Your task to perform on an android device: open app "Mercado Libre" Image 0: 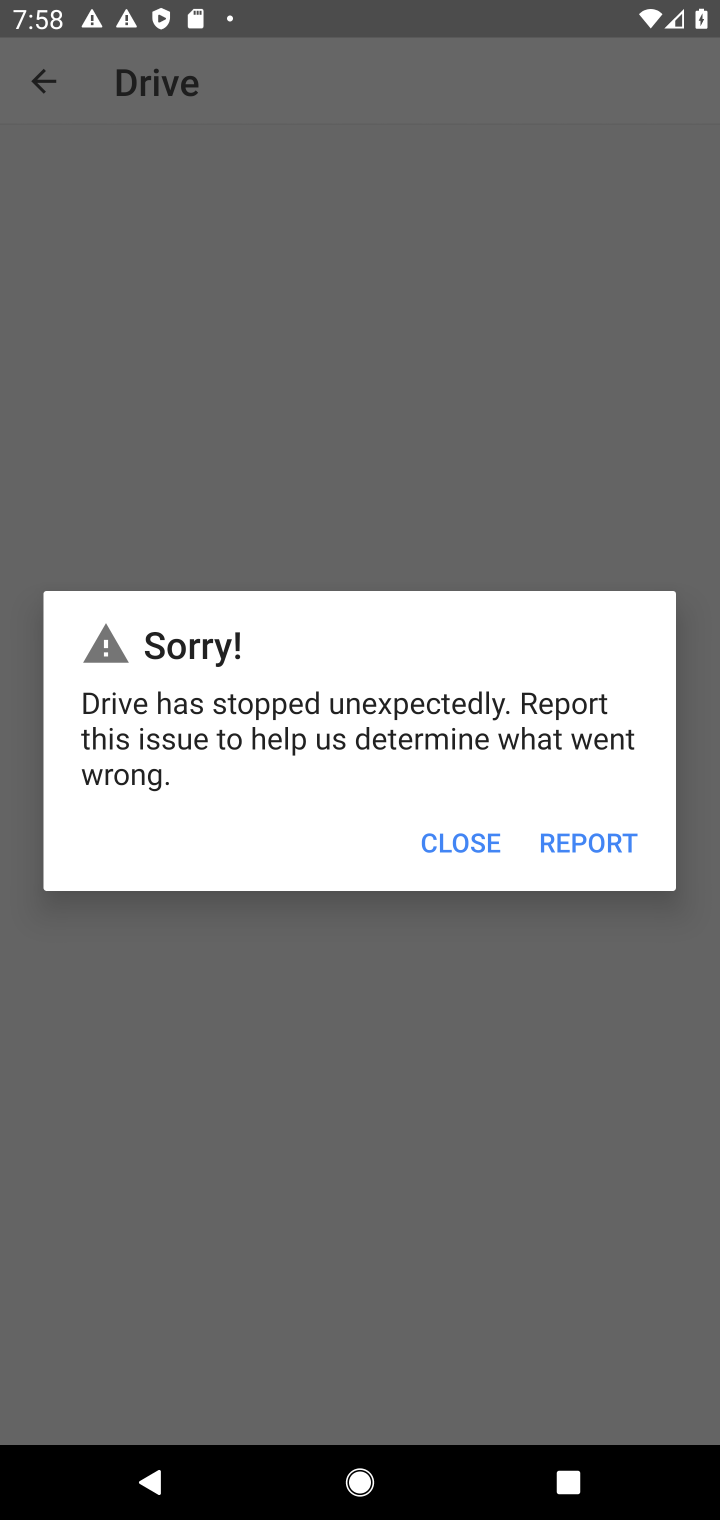
Step 0: press home button
Your task to perform on an android device: open app "Mercado Libre" Image 1: 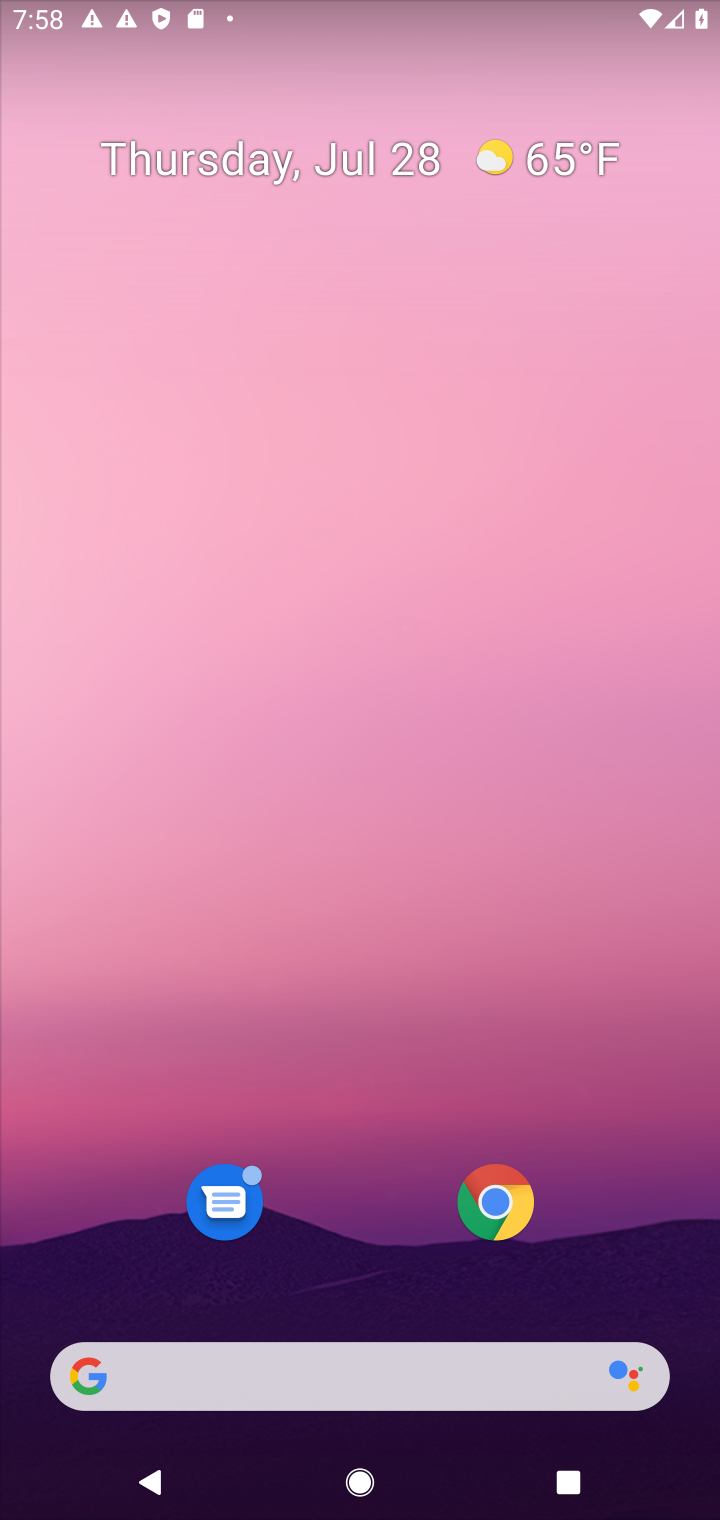
Step 1: drag from (370, 1319) to (462, 1)
Your task to perform on an android device: open app "Mercado Libre" Image 2: 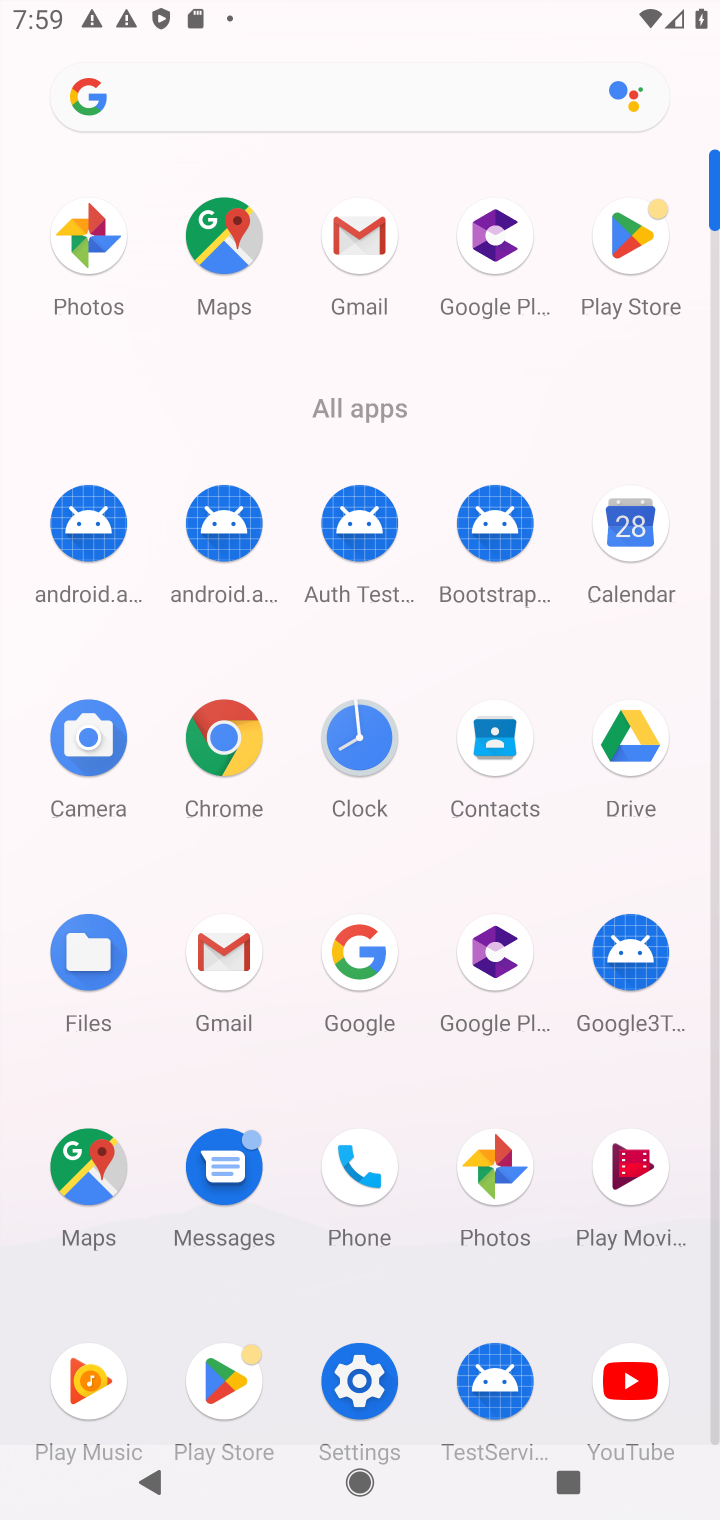
Step 2: click (633, 234)
Your task to perform on an android device: open app "Mercado Libre" Image 3: 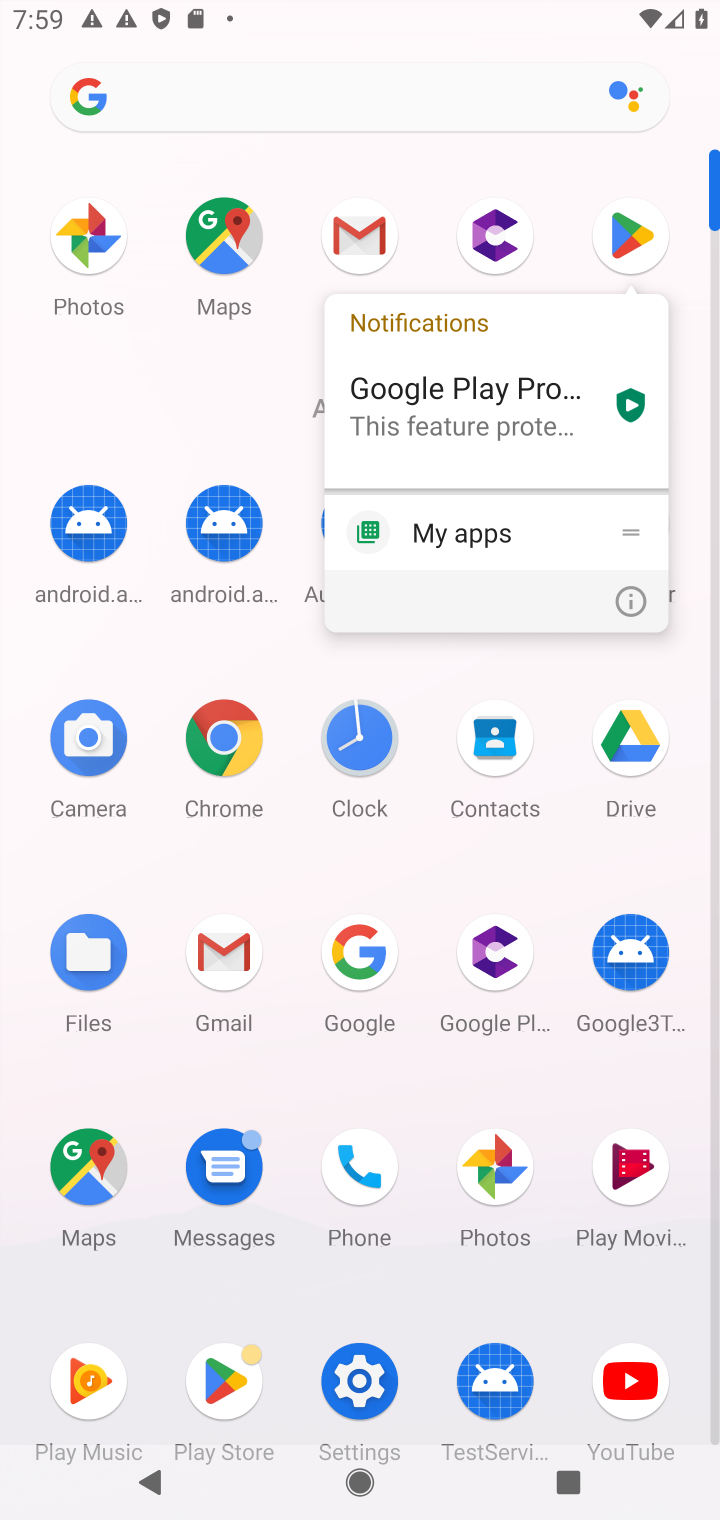
Step 3: click (633, 234)
Your task to perform on an android device: open app "Mercado Libre" Image 4: 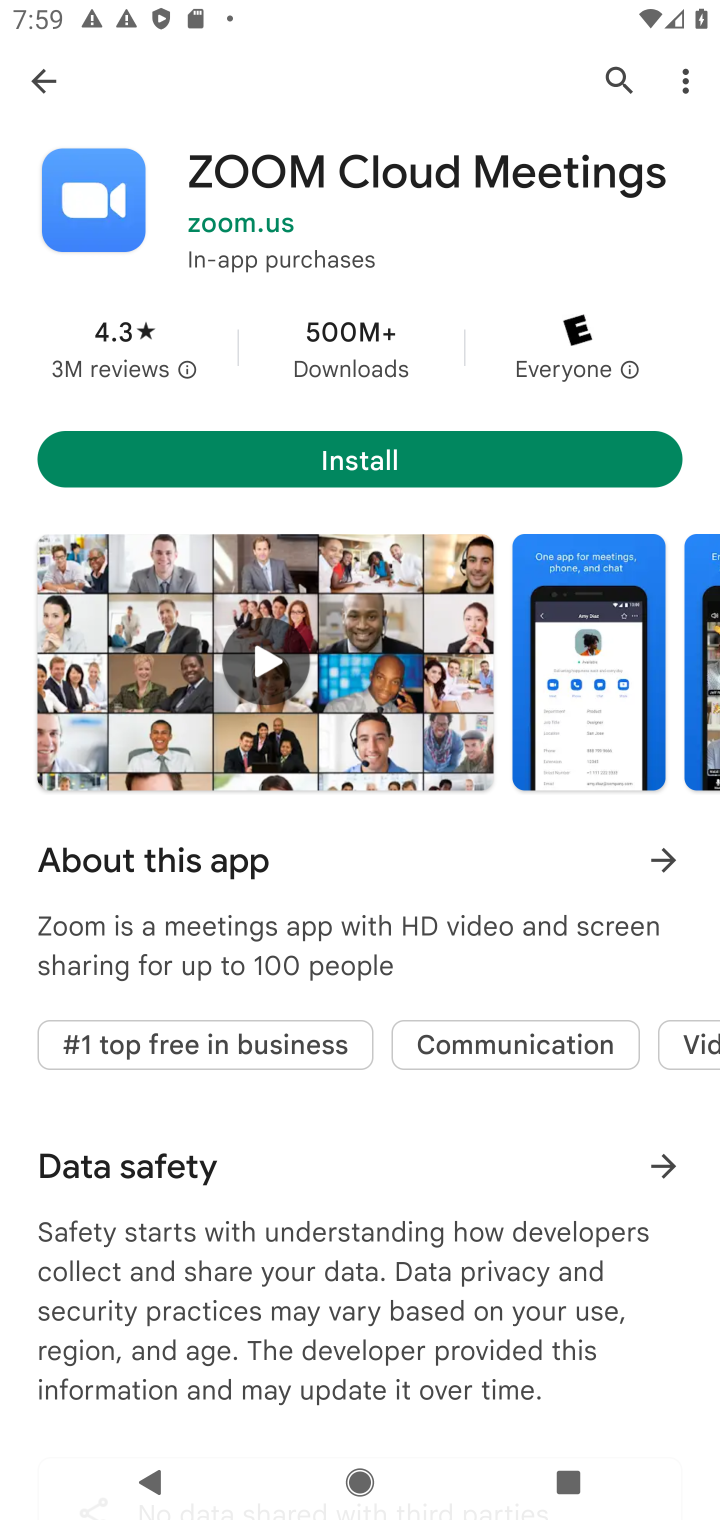
Step 4: click (43, 75)
Your task to perform on an android device: open app "Mercado Libre" Image 5: 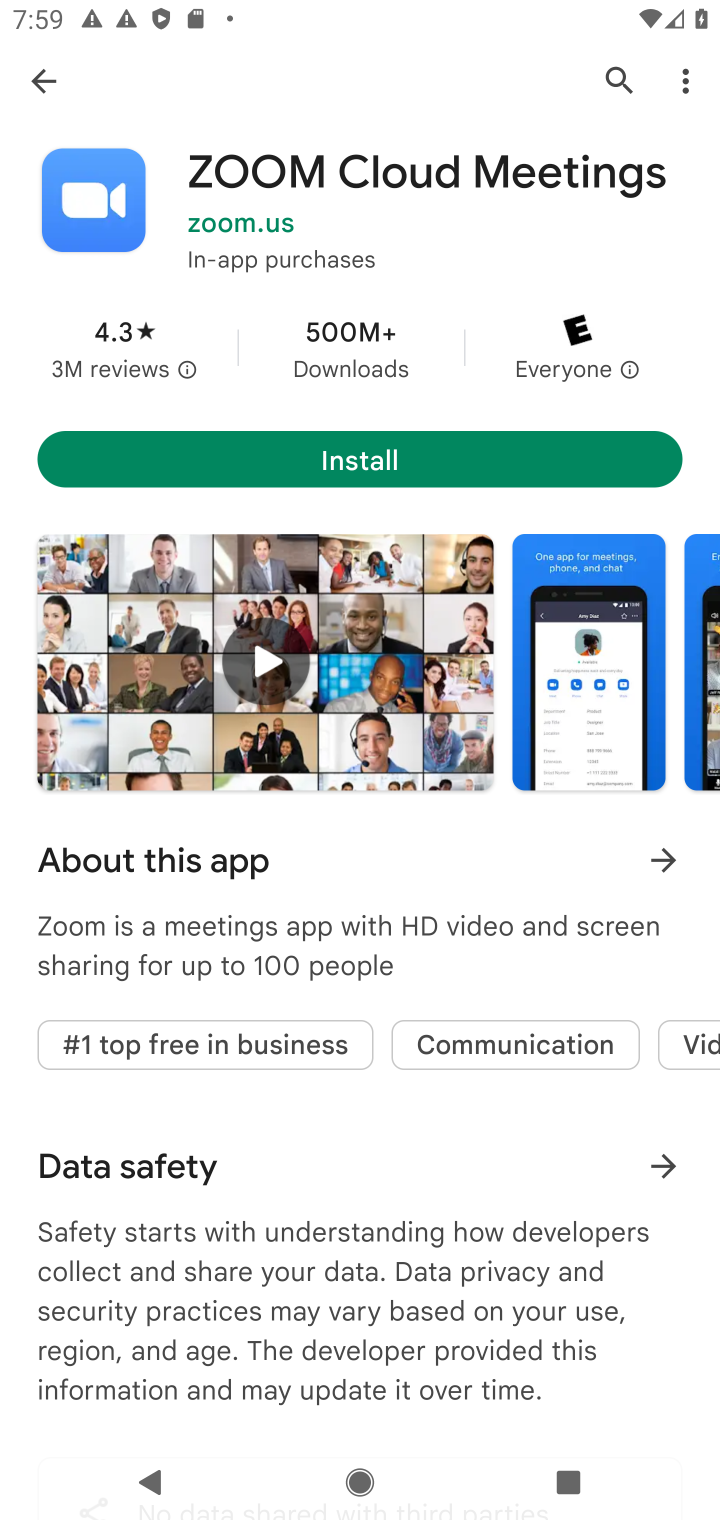
Step 5: click (51, 81)
Your task to perform on an android device: open app "Mercado Libre" Image 6: 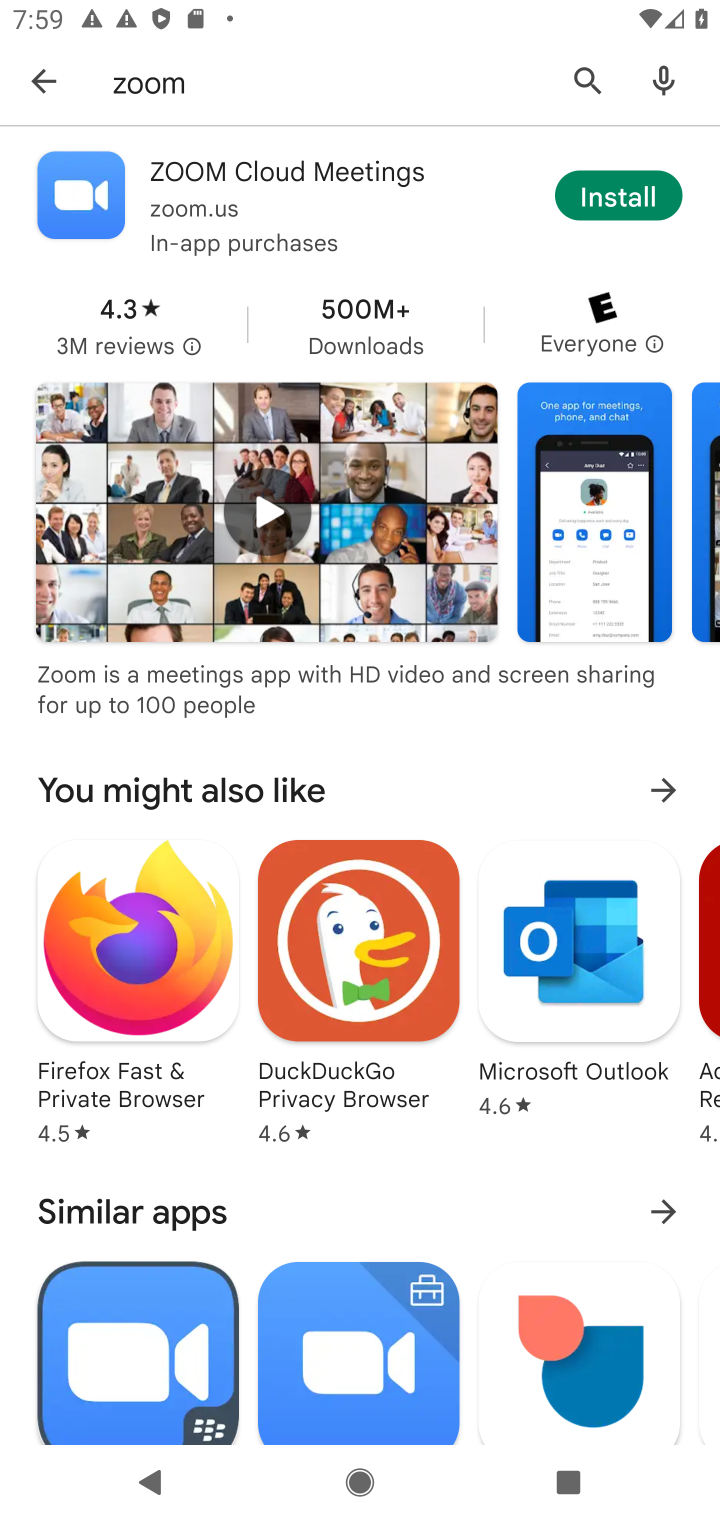
Step 6: click (587, 71)
Your task to perform on an android device: open app "Mercado Libre" Image 7: 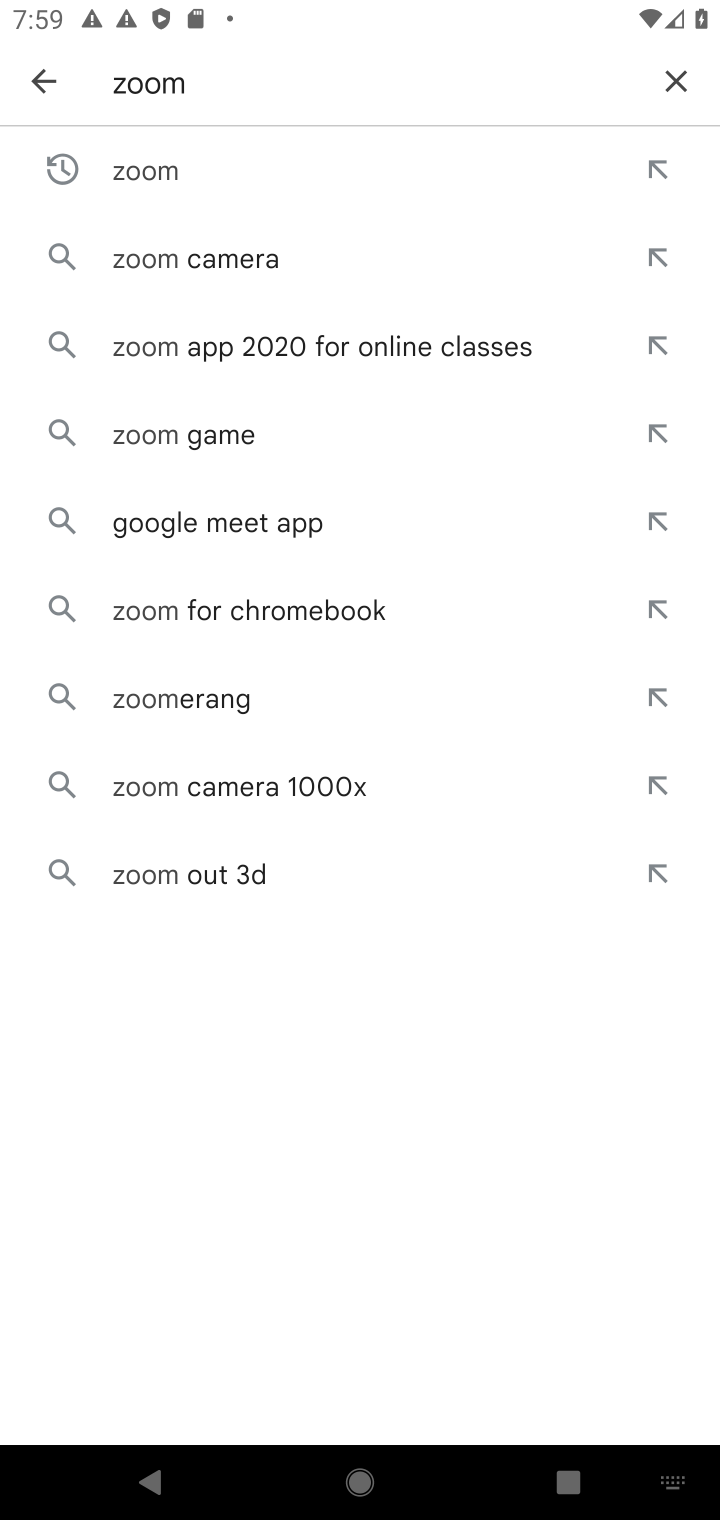
Step 7: click (663, 80)
Your task to perform on an android device: open app "Mercado Libre" Image 8: 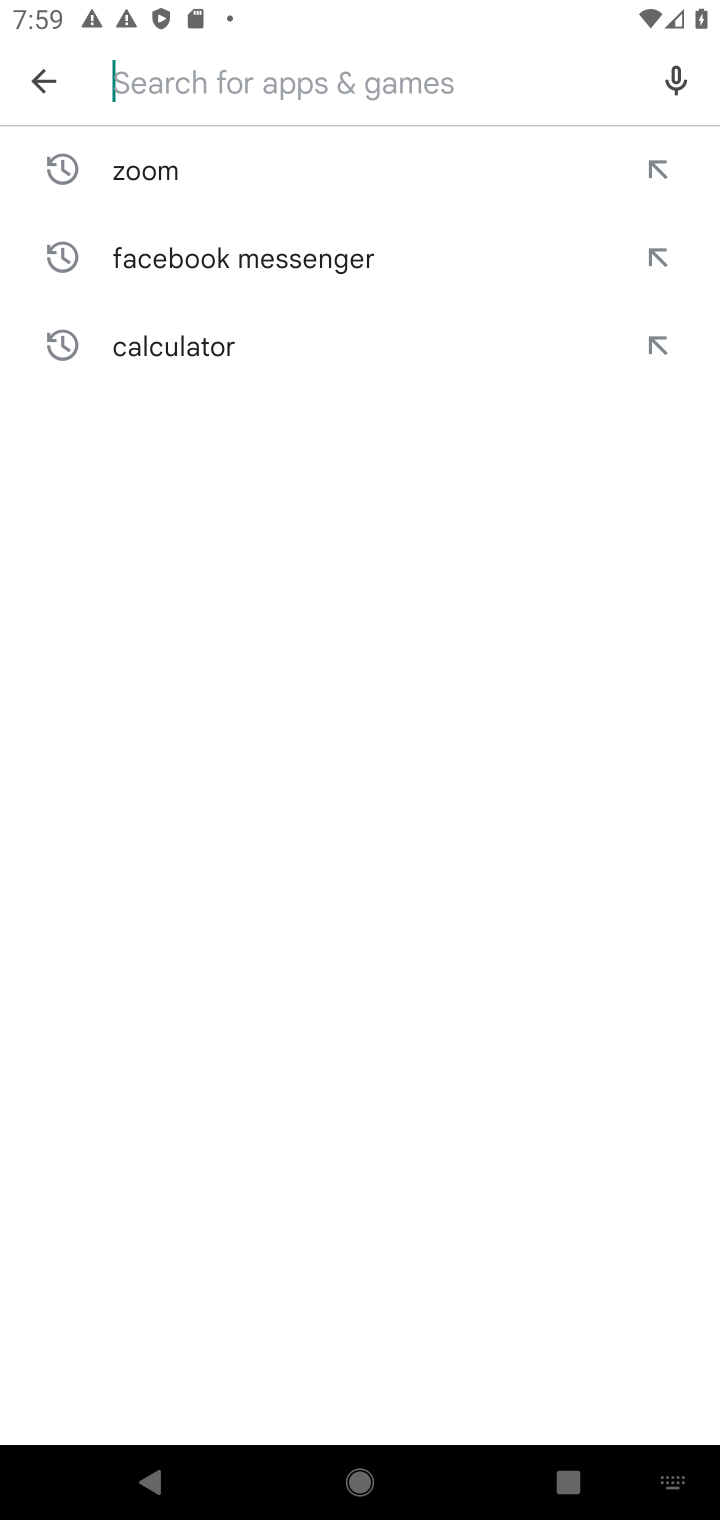
Step 8: type "Mercado Libre"
Your task to perform on an android device: open app "Mercado Libre" Image 9: 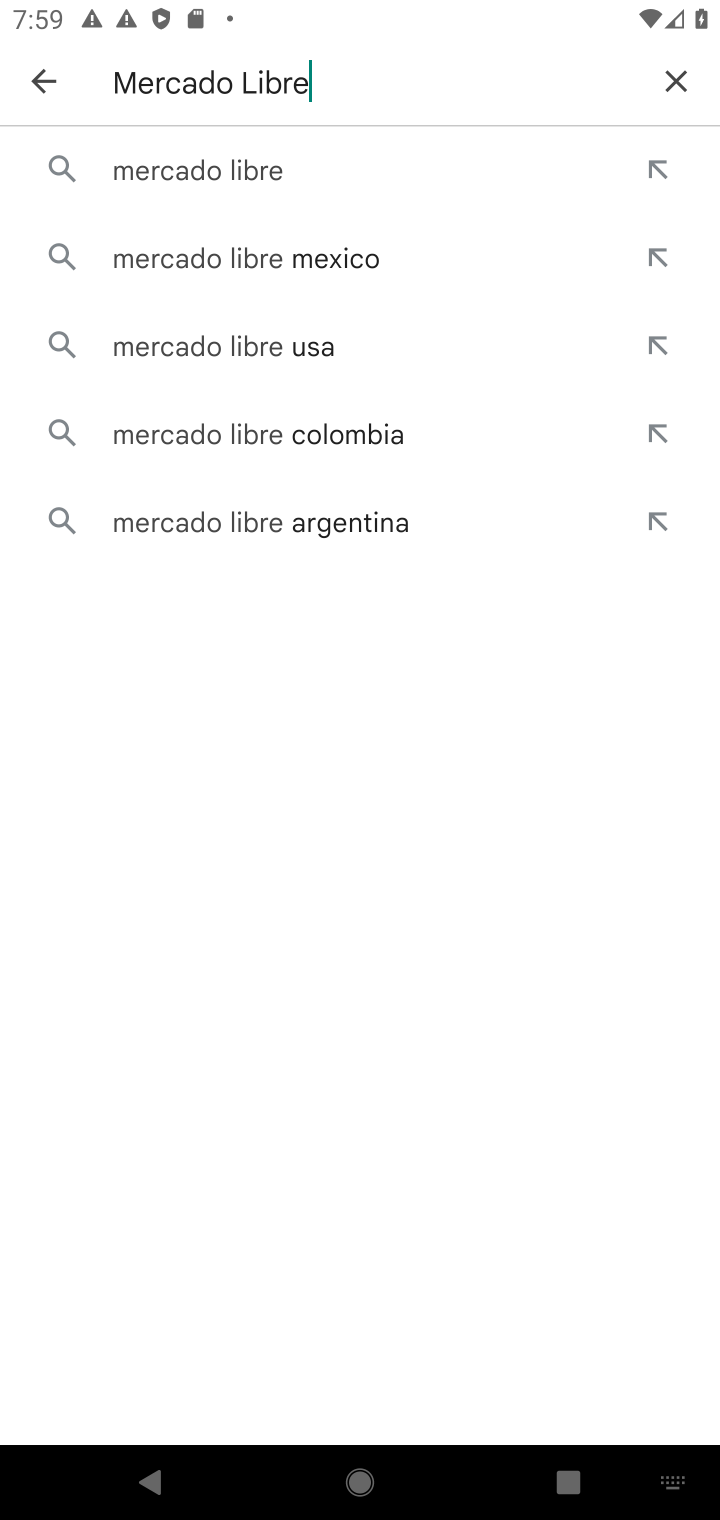
Step 9: click (271, 162)
Your task to perform on an android device: open app "Mercado Libre" Image 10: 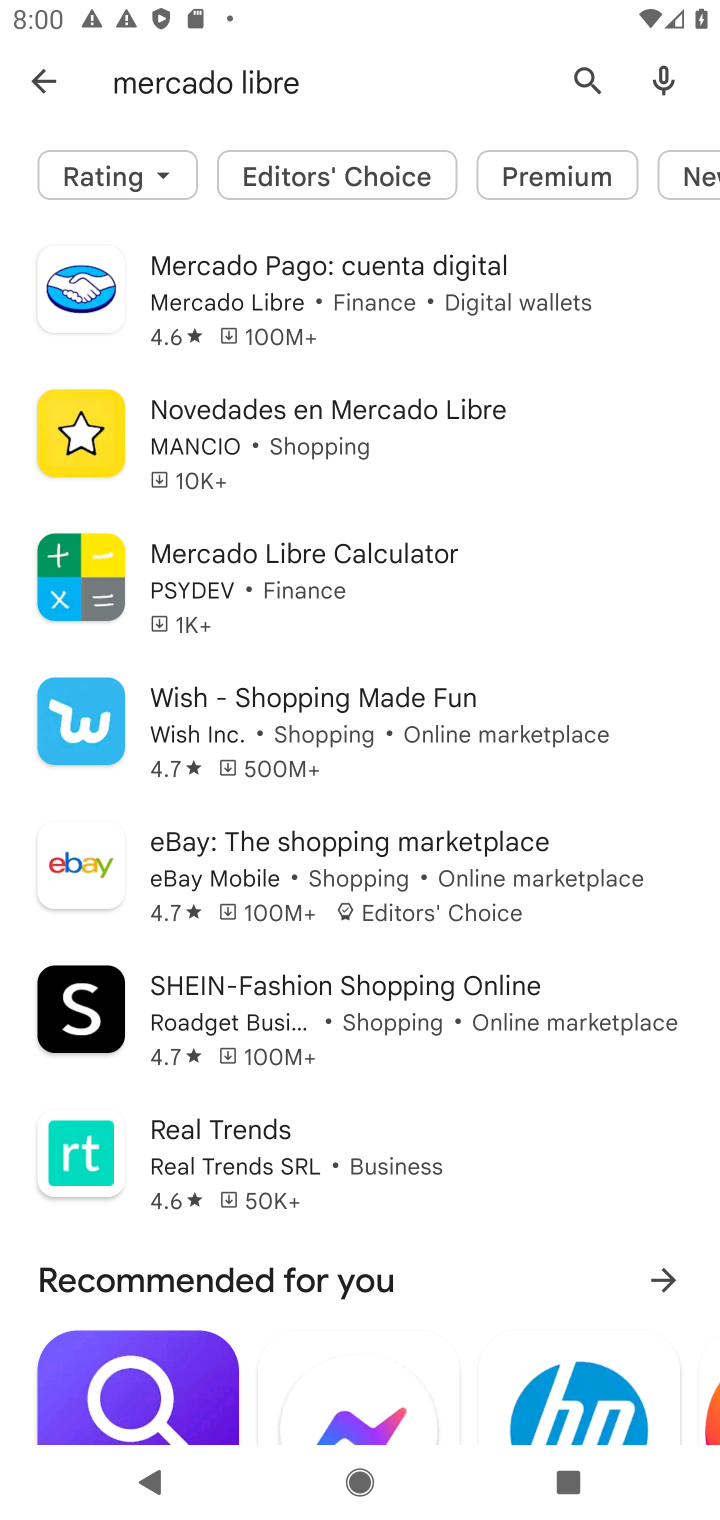
Step 10: task complete